Your task to perform on an android device: see sites visited before in the chrome app Image 0: 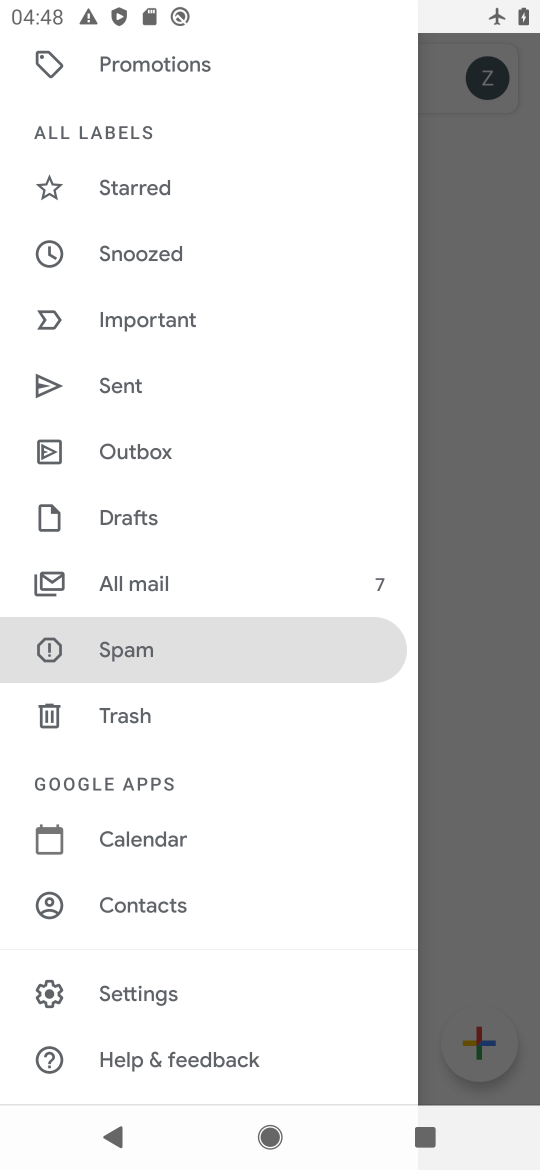
Step 0: press home button
Your task to perform on an android device: see sites visited before in the chrome app Image 1: 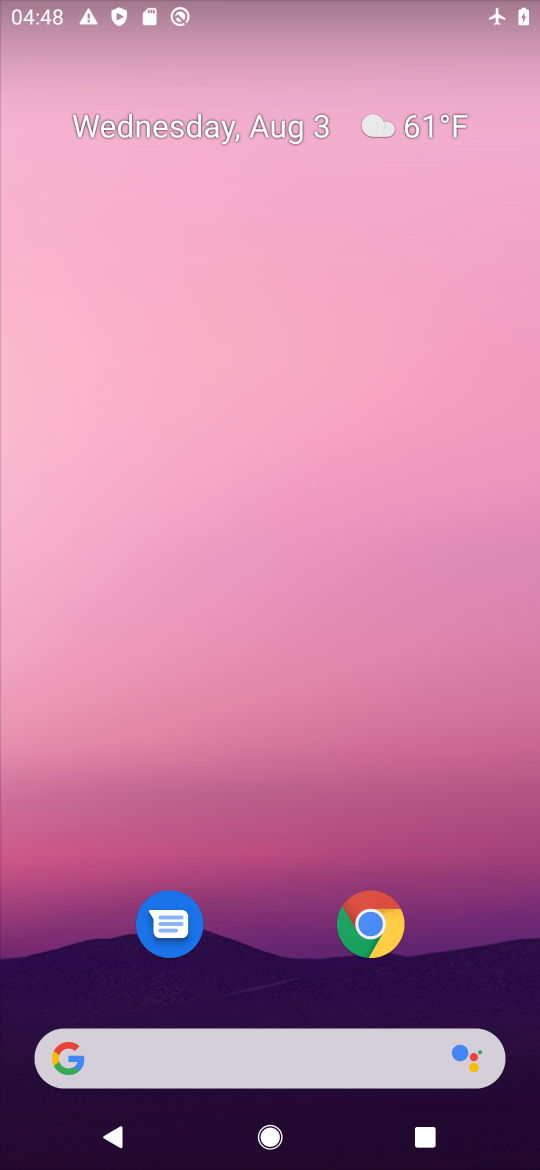
Step 1: click (394, 918)
Your task to perform on an android device: see sites visited before in the chrome app Image 2: 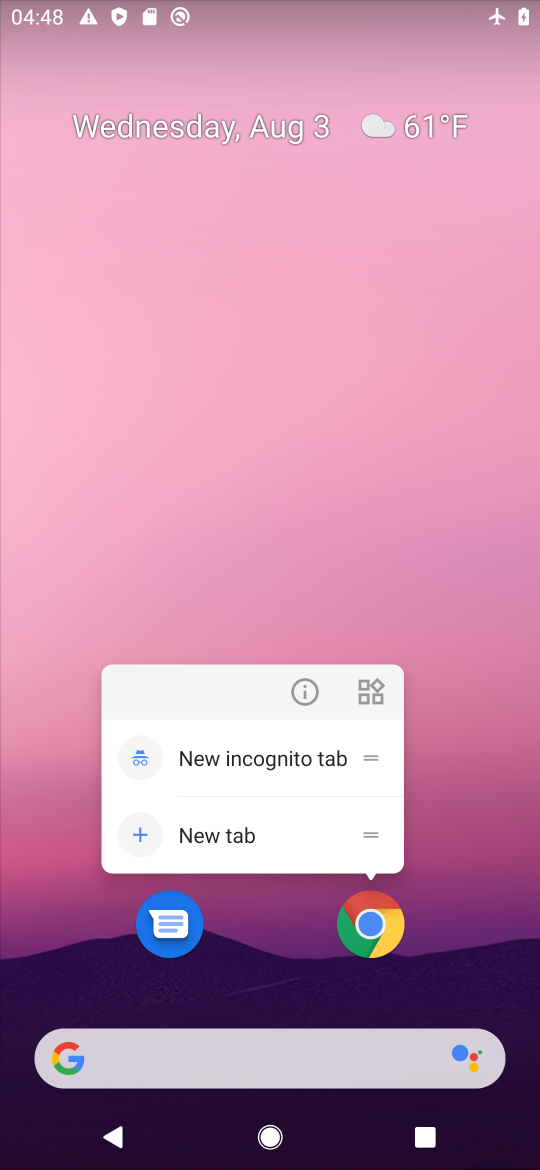
Step 2: click (368, 926)
Your task to perform on an android device: see sites visited before in the chrome app Image 3: 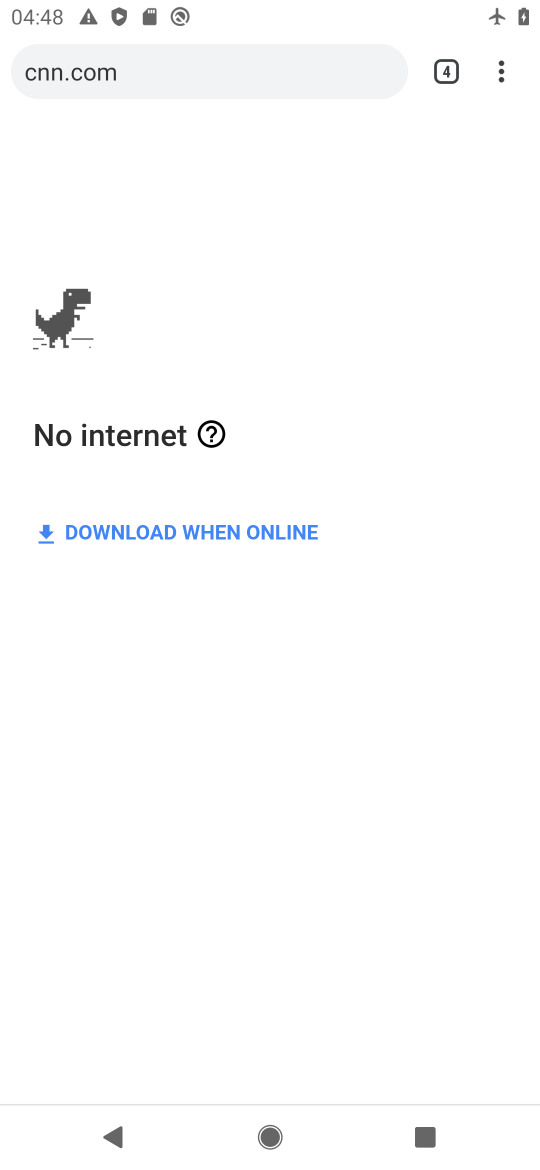
Step 3: click (500, 83)
Your task to perform on an android device: see sites visited before in the chrome app Image 4: 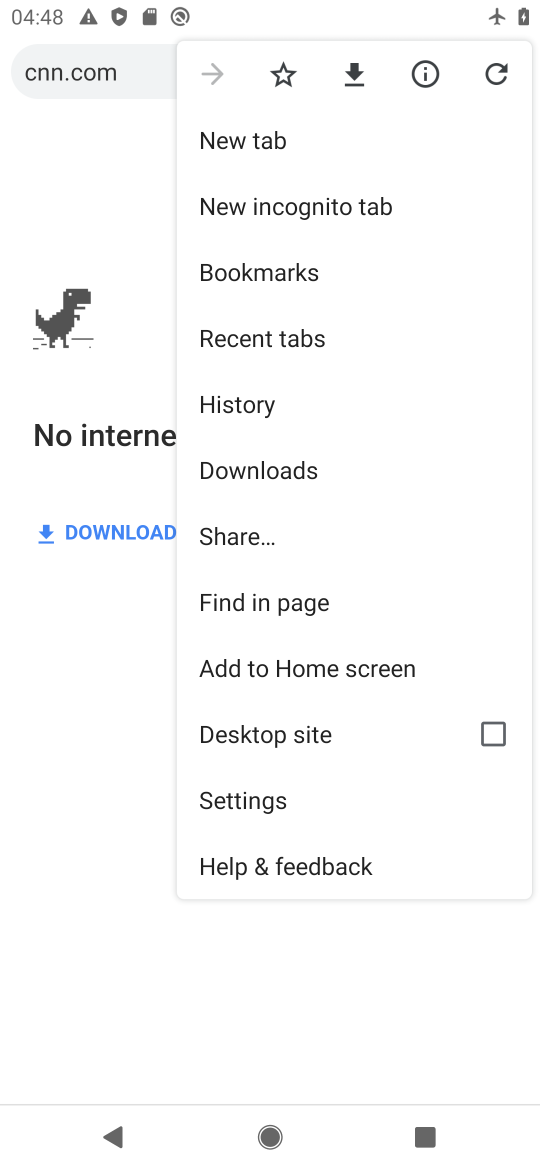
Step 4: click (287, 336)
Your task to perform on an android device: see sites visited before in the chrome app Image 5: 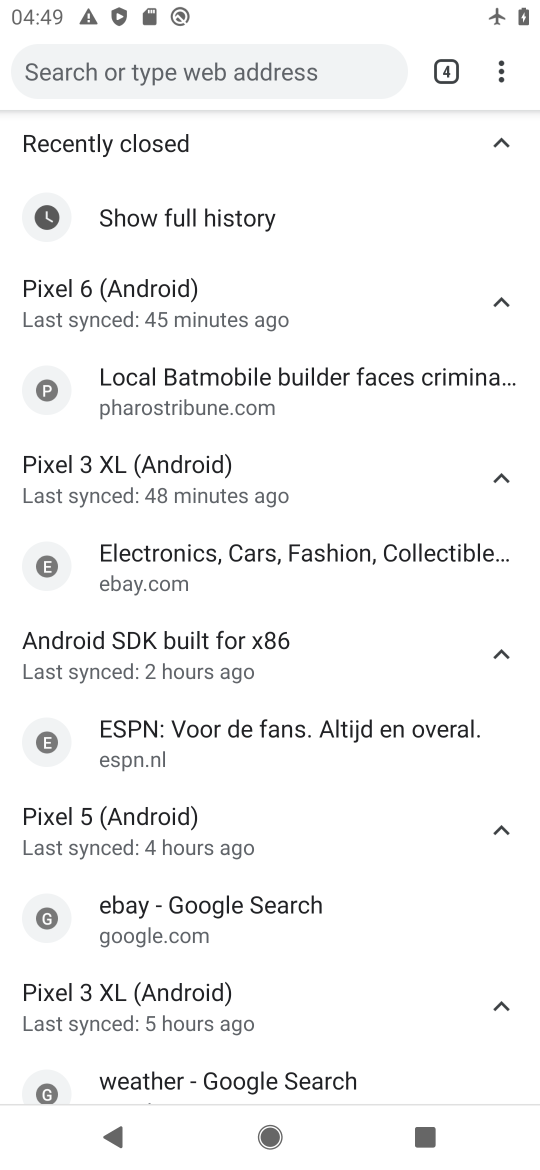
Step 5: task complete